Your task to perform on an android device: Go to Wikipedia Image 0: 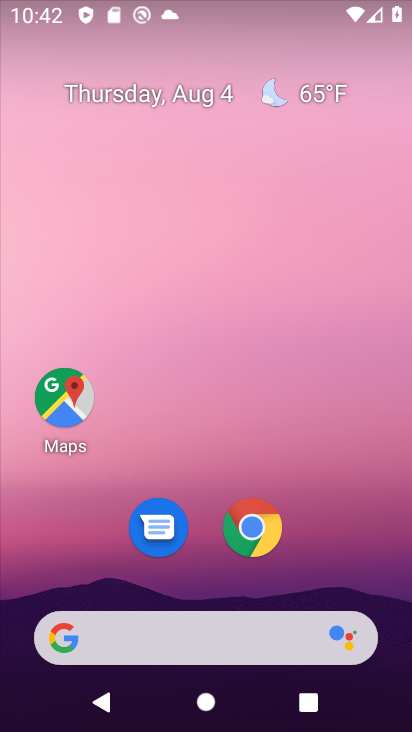
Step 0: click (236, 637)
Your task to perform on an android device: Go to Wikipedia Image 1: 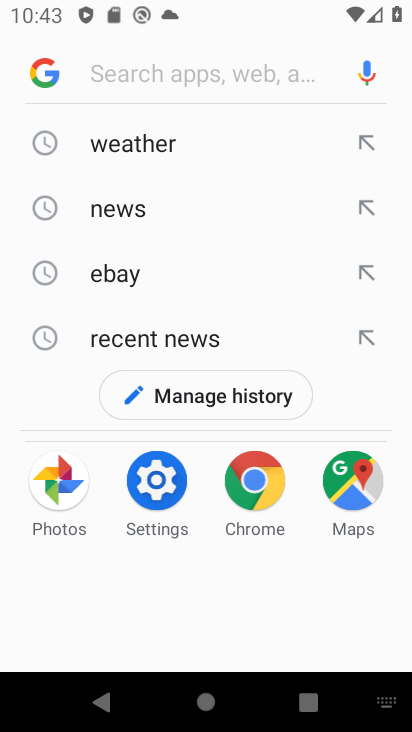
Step 1: type "wikipedia"
Your task to perform on an android device: Go to Wikipedia Image 2: 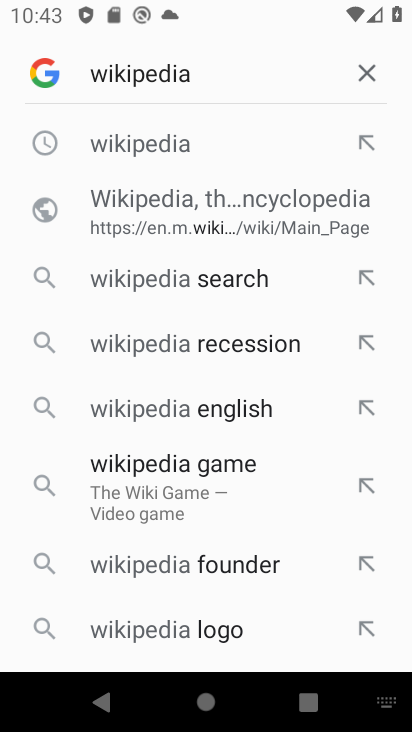
Step 2: click (259, 213)
Your task to perform on an android device: Go to Wikipedia Image 3: 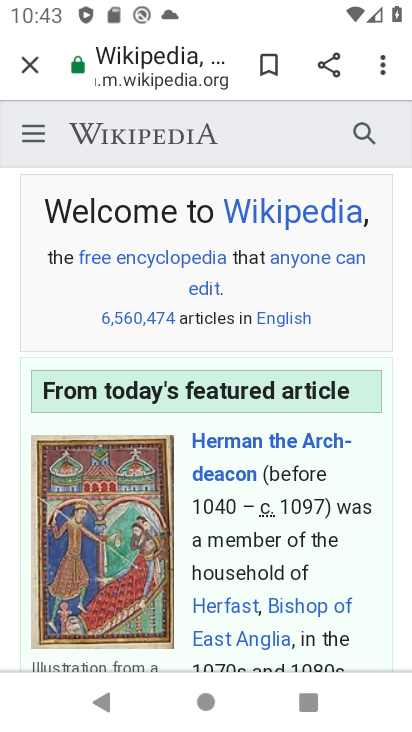
Step 3: task complete